Your task to perform on an android device: Open Yahoo.com Image 0: 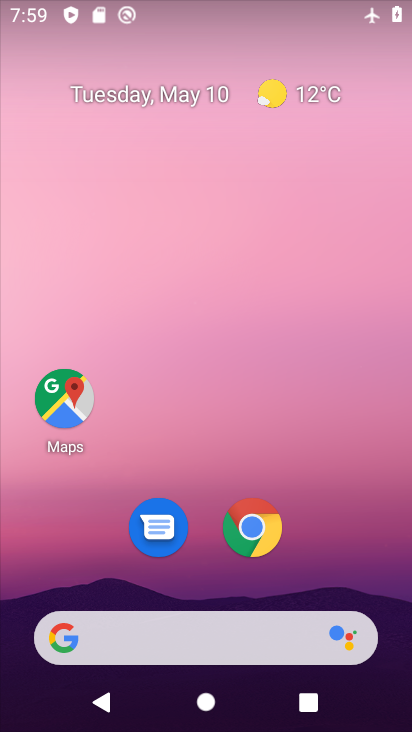
Step 0: click (268, 545)
Your task to perform on an android device: Open Yahoo.com Image 1: 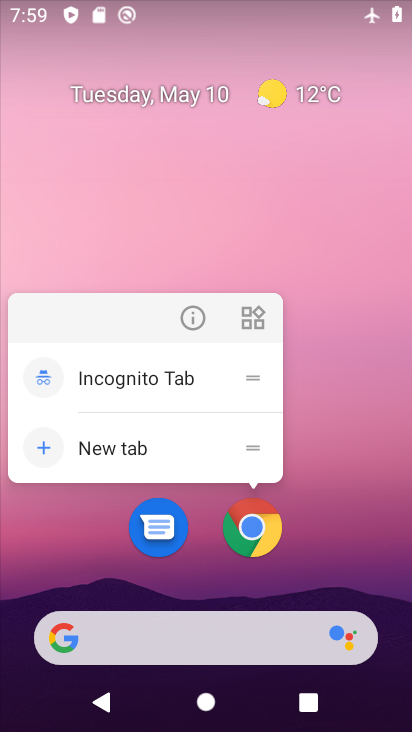
Step 1: click (255, 536)
Your task to perform on an android device: Open Yahoo.com Image 2: 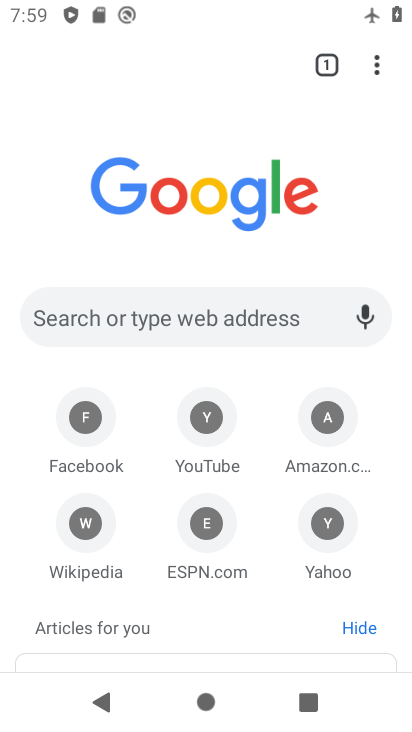
Step 2: click (191, 316)
Your task to perform on an android device: Open Yahoo.com Image 3: 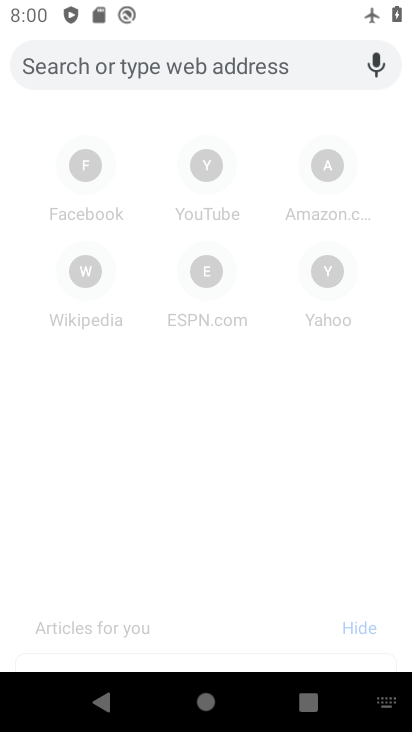
Step 3: type "yahoo.com"
Your task to perform on an android device: Open Yahoo.com Image 4: 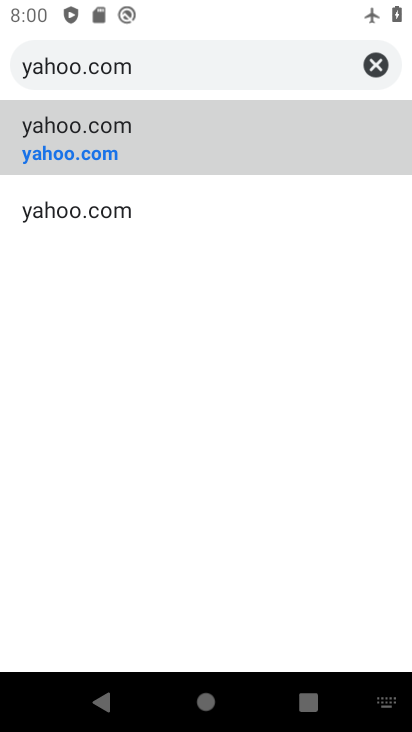
Step 4: click (35, 154)
Your task to perform on an android device: Open Yahoo.com Image 5: 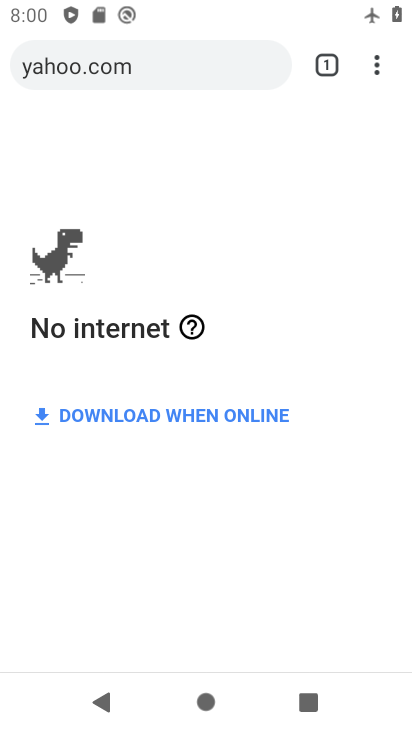
Step 5: task complete